Your task to perform on an android device: turn off translation in the chrome app Image 0: 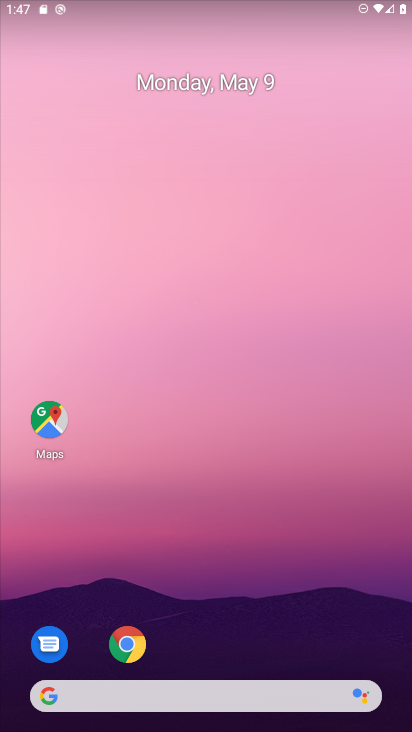
Step 0: drag from (223, 501) to (294, 179)
Your task to perform on an android device: turn off translation in the chrome app Image 1: 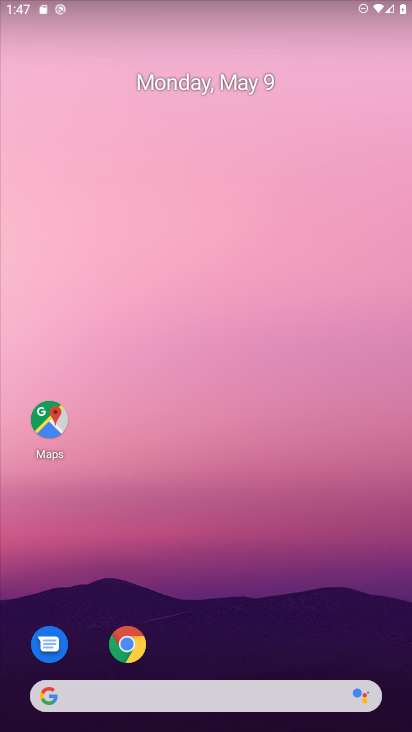
Step 1: drag from (246, 527) to (263, 249)
Your task to perform on an android device: turn off translation in the chrome app Image 2: 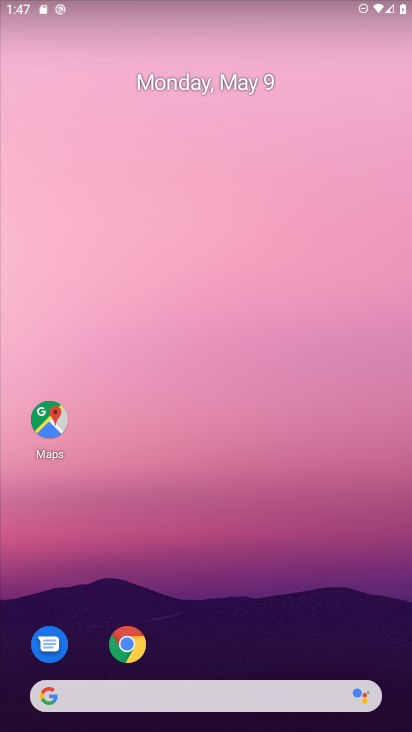
Step 2: drag from (217, 422) to (270, 53)
Your task to perform on an android device: turn off translation in the chrome app Image 3: 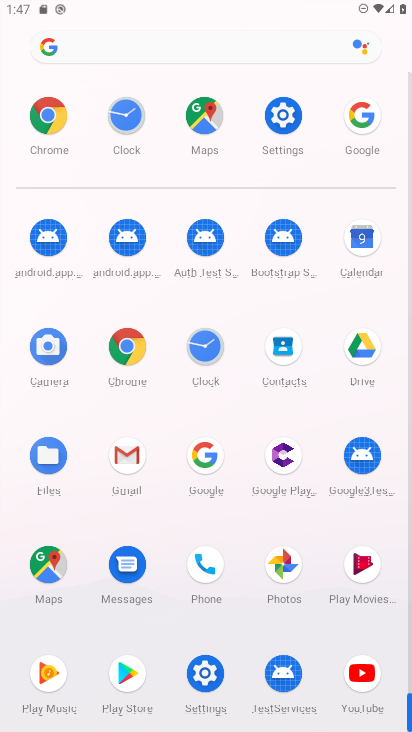
Step 3: click (51, 138)
Your task to perform on an android device: turn off translation in the chrome app Image 4: 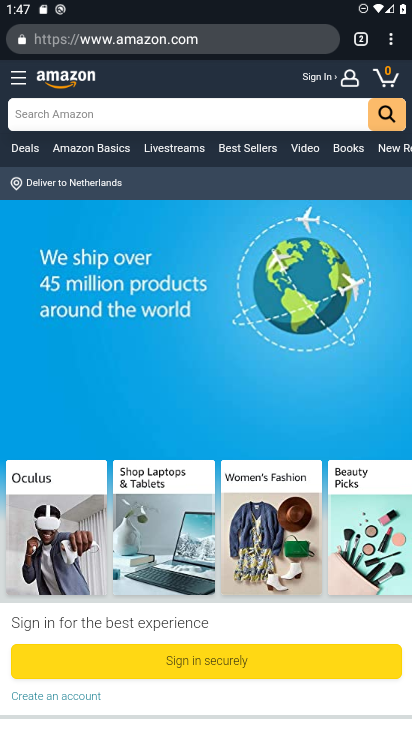
Step 4: click (393, 42)
Your task to perform on an android device: turn off translation in the chrome app Image 5: 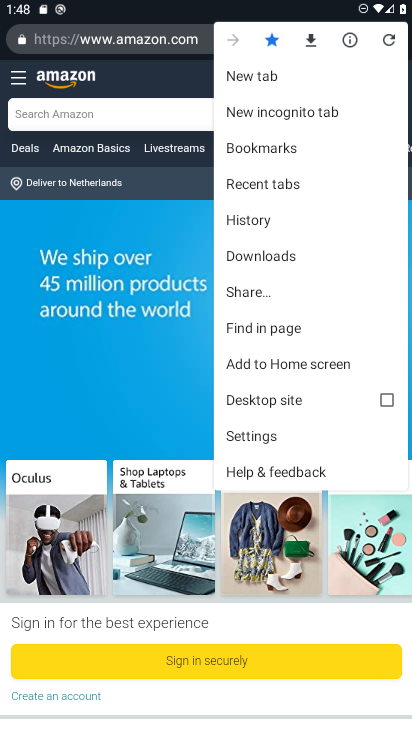
Step 5: click (250, 433)
Your task to perform on an android device: turn off translation in the chrome app Image 6: 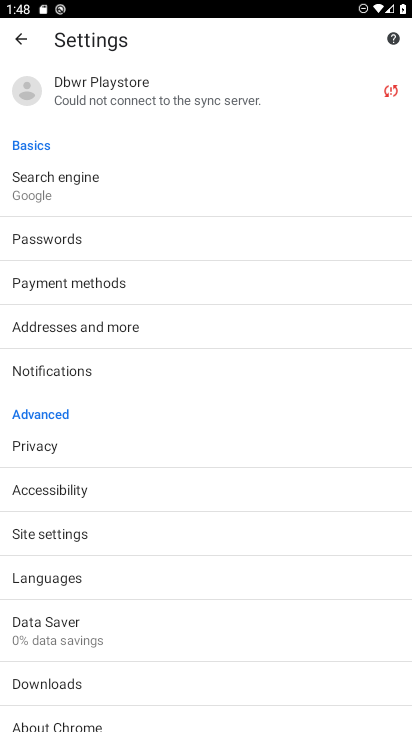
Step 6: drag from (108, 627) to (150, 391)
Your task to perform on an android device: turn off translation in the chrome app Image 7: 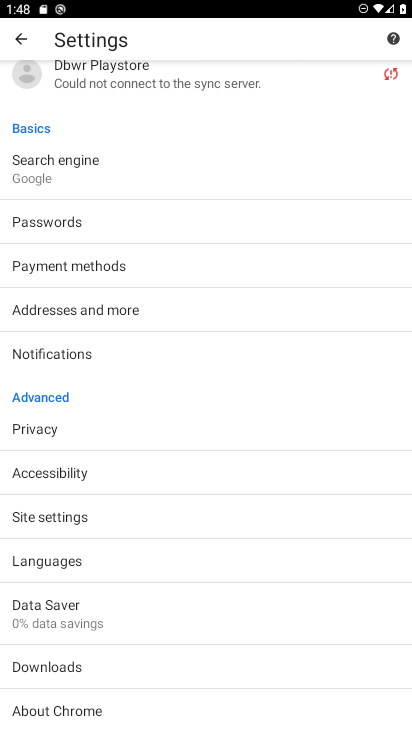
Step 7: drag from (126, 593) to (179, 381)
Your task to perform on an android device: turn off translation in the chrome app Image 8: 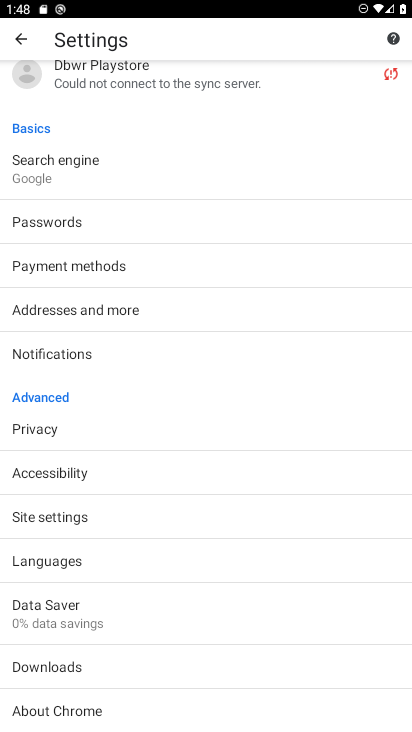
Step 8: click (36, 568)
Your task to perform on an android device: turn off translation in the chrome app Image 9: 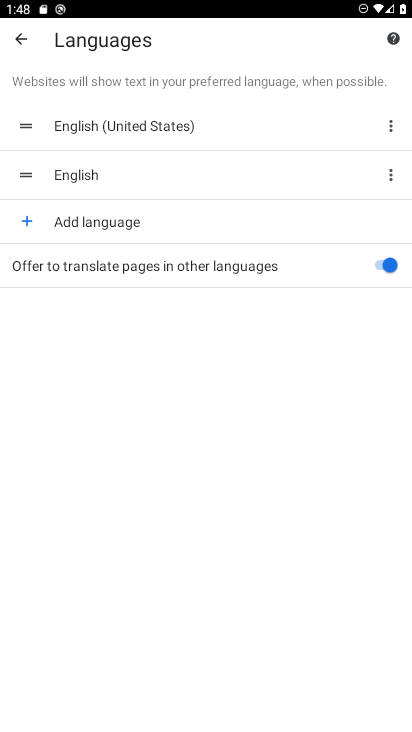
Step 9: click (382, 266)
Your task to perform on an android device: turn off translation in the chrome app Image 10: 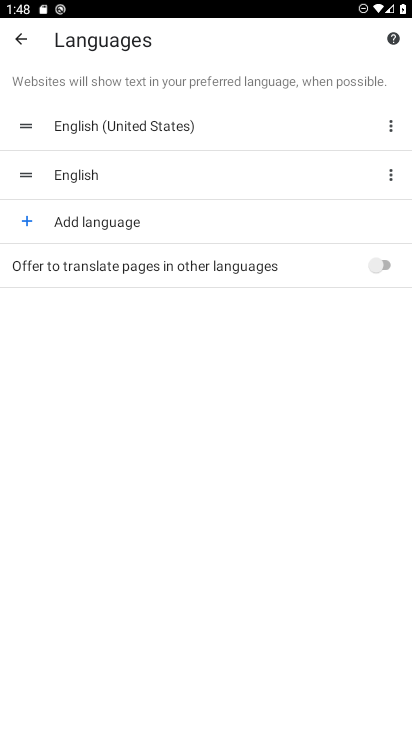
Step 10: task complete